Your task to perform on an android device: Open Reddit.com Image 0: 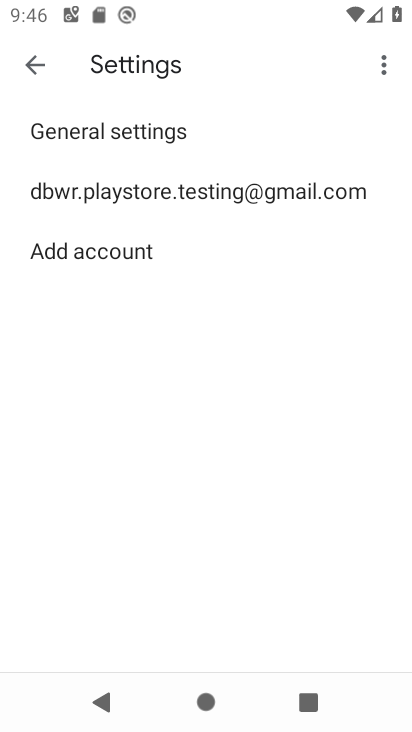
Step 0: press home button
Your task to perform on an android device: Open Reddit.com Image 1: 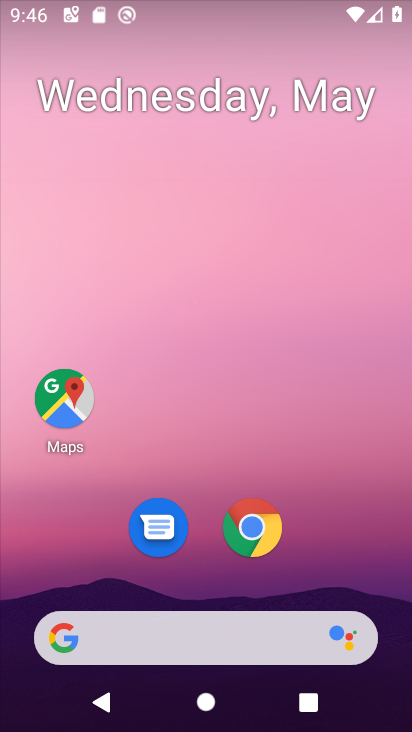
Step 1: drag from (216, 581) to (172, 58)
Your task to perform on an android device: Open Reddit.com Image 2: 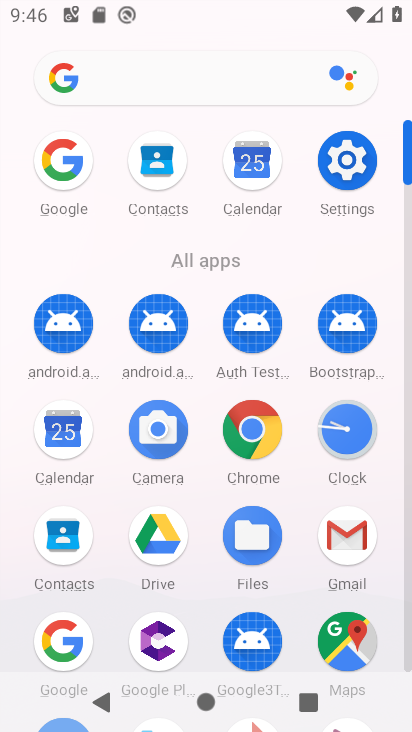
Step 2: click (61, 161)
Your task to perform on an android device: Open Reddit.com Image 3: 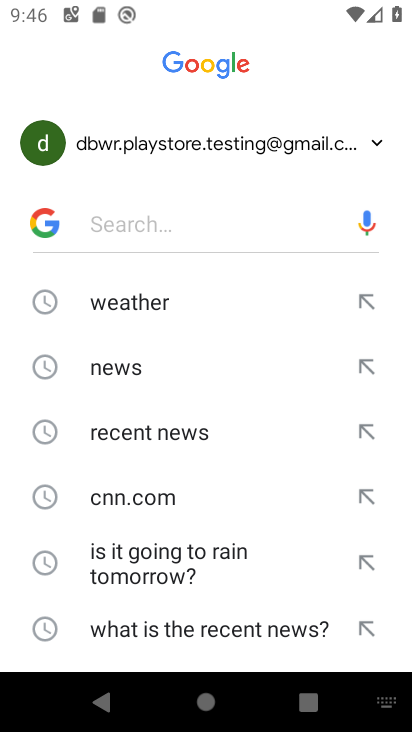
Step 3: drag from (177, 491) to (228, 219)
Your task to perform on an android device: Open Reddit.com Image 4: 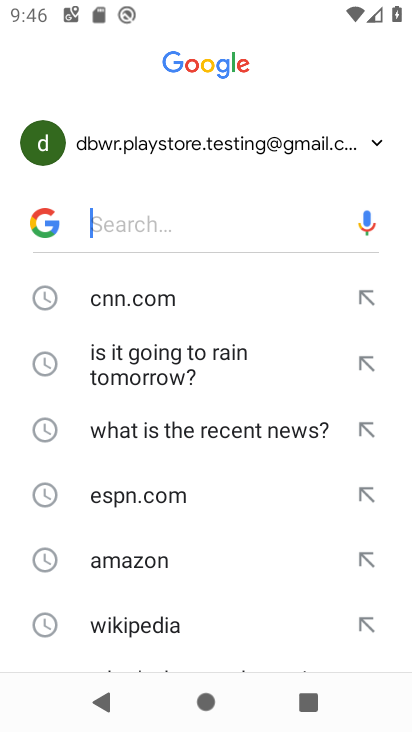
Step 4: drag from (186, 584) to (199, 231)
Your task to perform on an android device: Open Reddit.com Image 5: 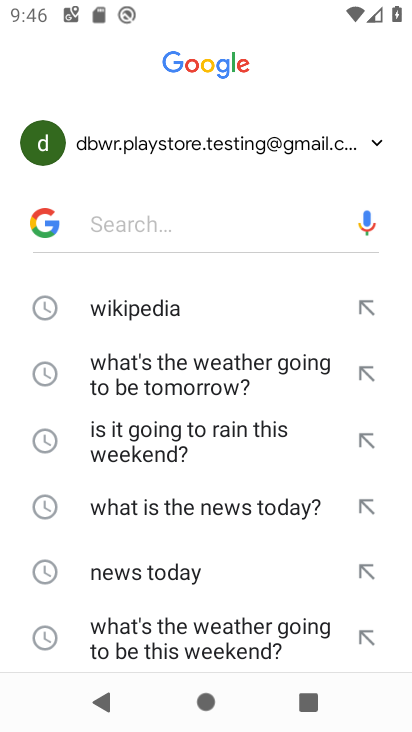
Step 5: drag from (204, 649) to (210, 308)
Your task to perform on an android device: Open Reddit.com Image 6: 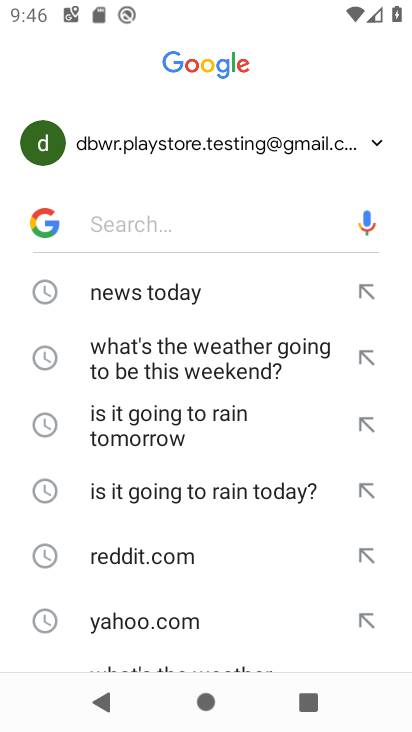
Step 6: click (152, 548)
Your task to perform on an android device: Open Reddit.com Image 7: 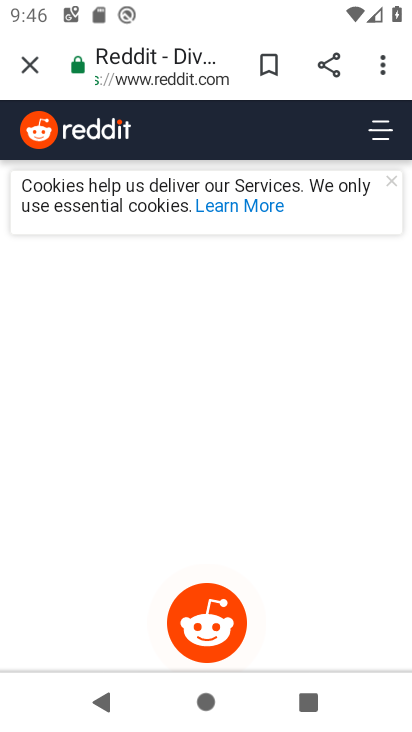
Step 7: click (371, 66)
Your task to perform on an android device: Open Reddit.com Image 8: 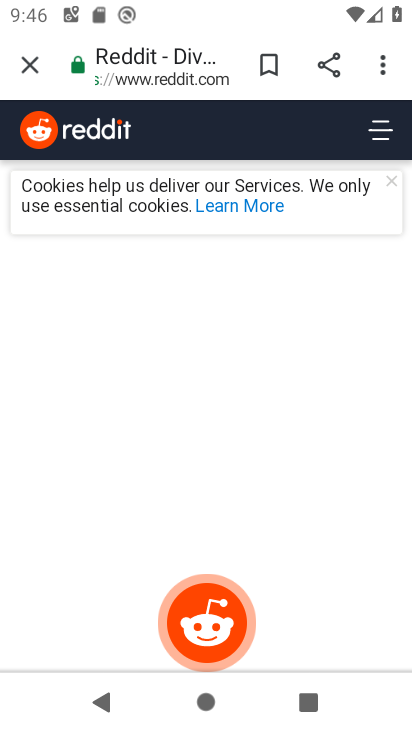
Step 8: task complete